Your task to perform on an android device: Go to battery settings Image 0: 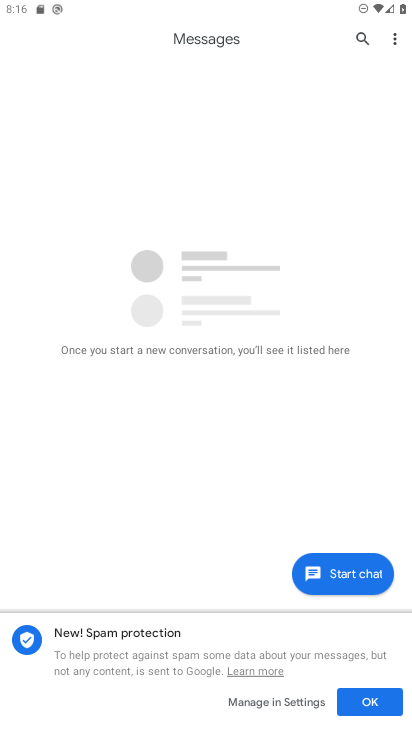
Step 0: press back button
Your task to perform on an android device: Go to battery settings Image 1: 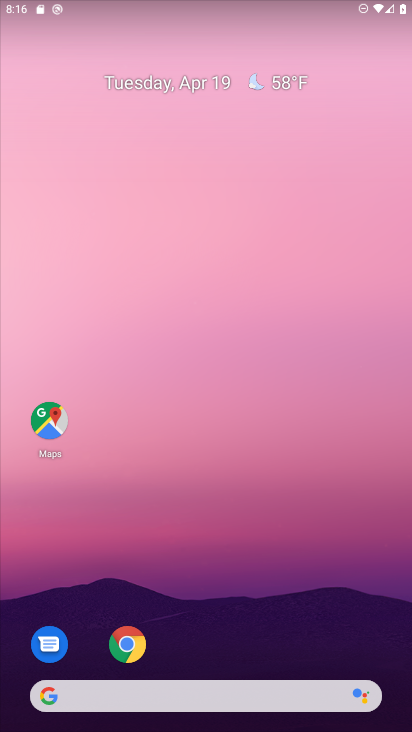
Step 1: drag from (170, 640) to (330, 215)
Your task to perform on an android device: Go to battery settings Image 2: 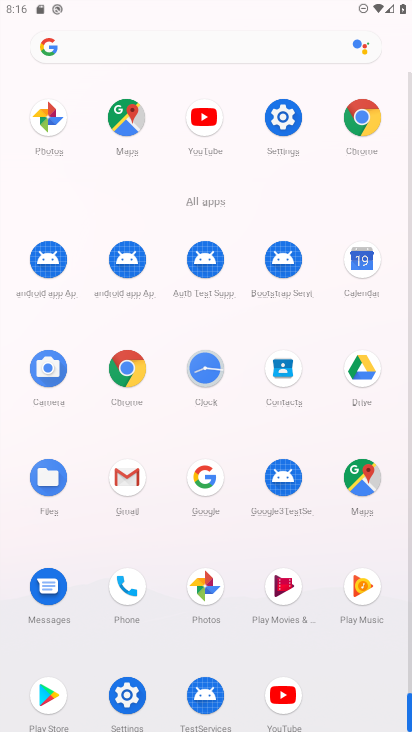
Step 2: click (117, 704)
Your task to perform on an android device: Go to battery settings Image 3: 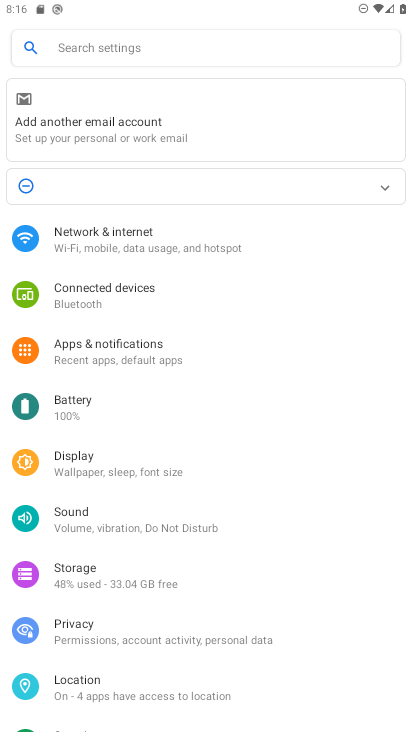
Step 3: click (106, 415)
Your task to perform on an android device: Go to battery settings Image 4: 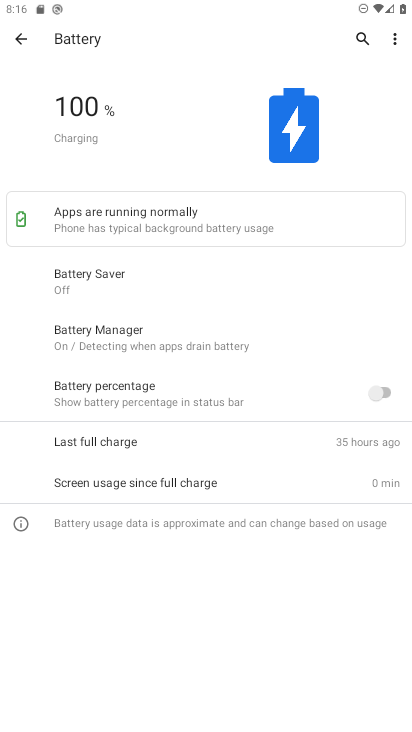
Step 4: task complete